Your task to perform on an android device: open sync settings in chrome Image 0: 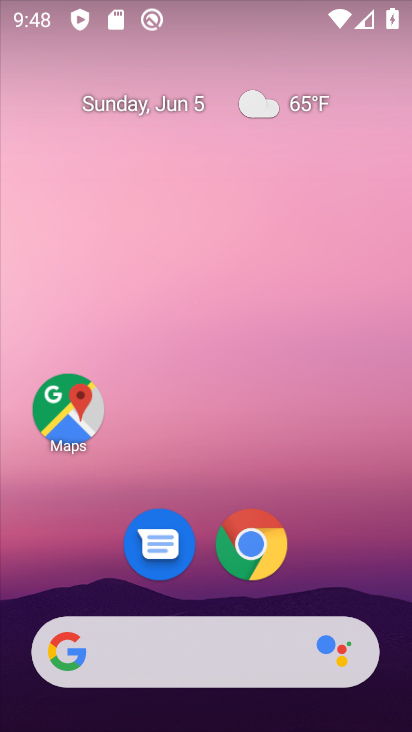
Step 0: click (272, 555)
Your task to perform on an android device: open sync settings in chrome Image 1: 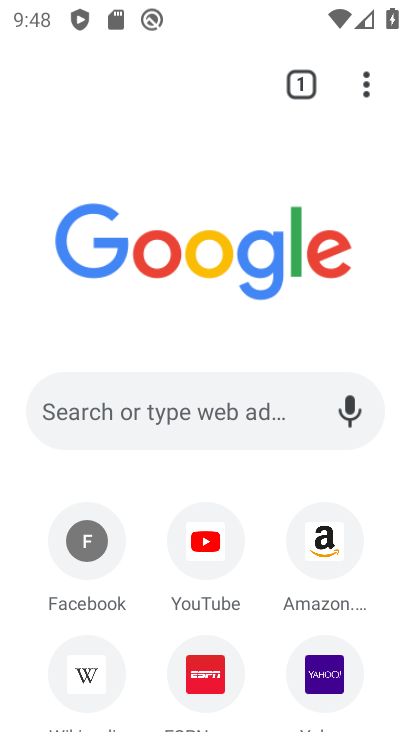
Step 1: task complete